Your task to perform on an android device: Clear the cart on ebay. Add jbl flip 4 to the cart on ebay Image 0: 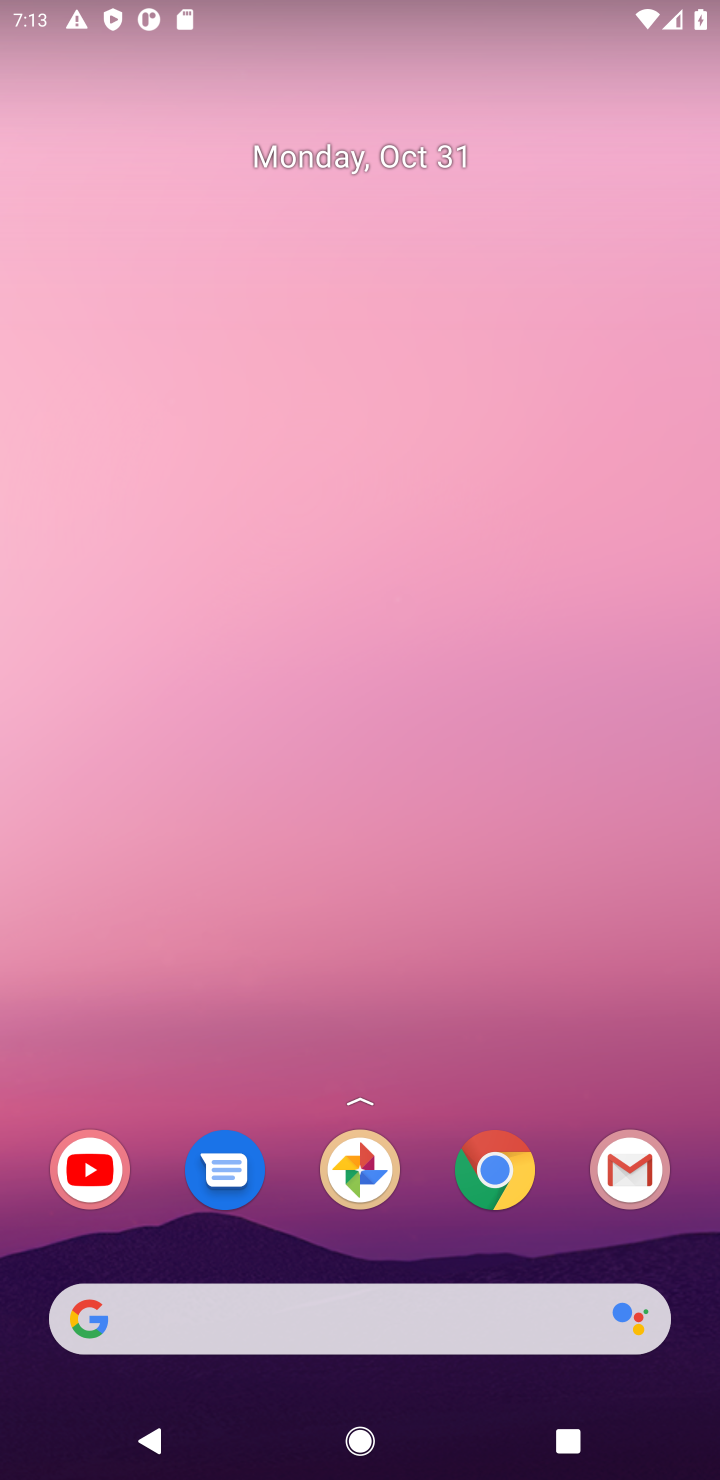
Step 0: click (500, 1178)
Your task to perform on an android device: Clear the cart on ebay. Add jbl flip 4 to the cart on ebay Image 1: 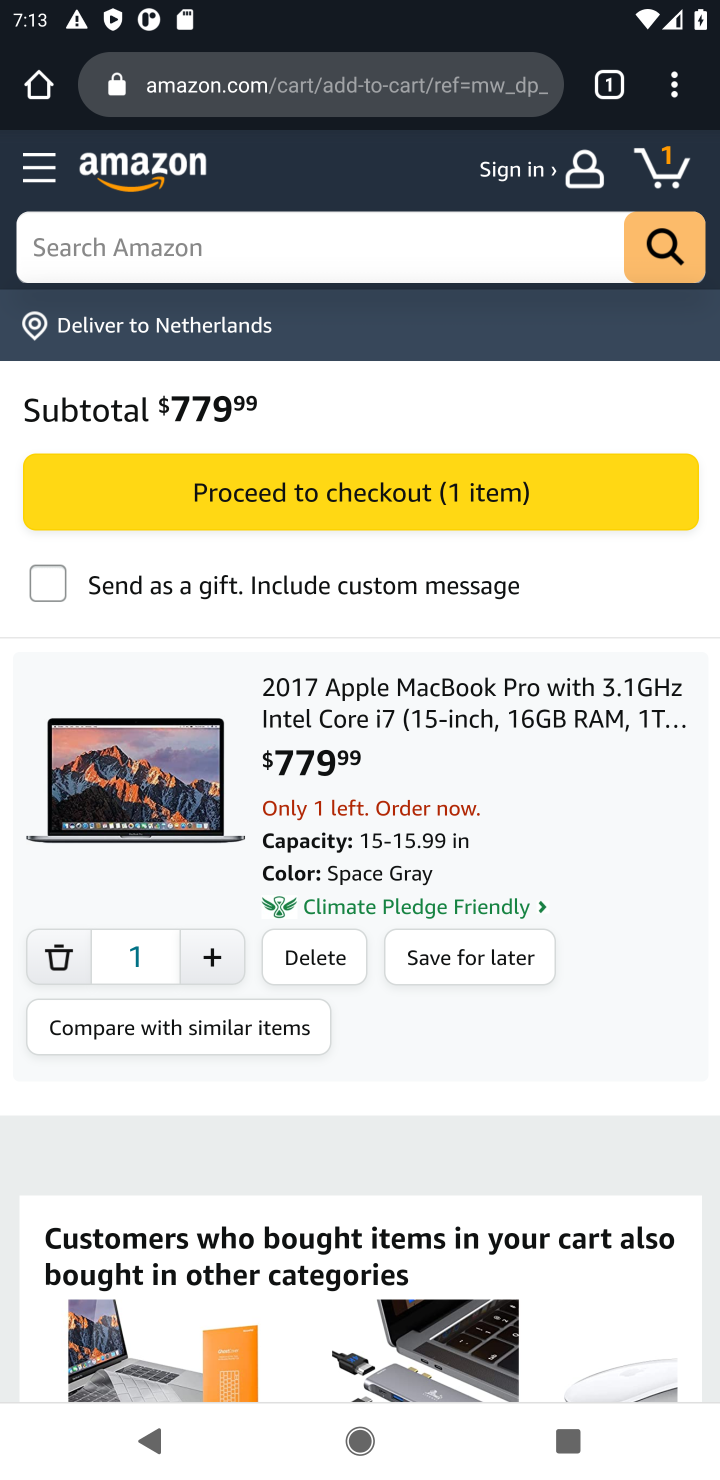
Step 1: click (396, 91)
Your task to perform on an android device: Clear the cart on ebay. Add jbl flip 4 to the cart on ebay Image 2: 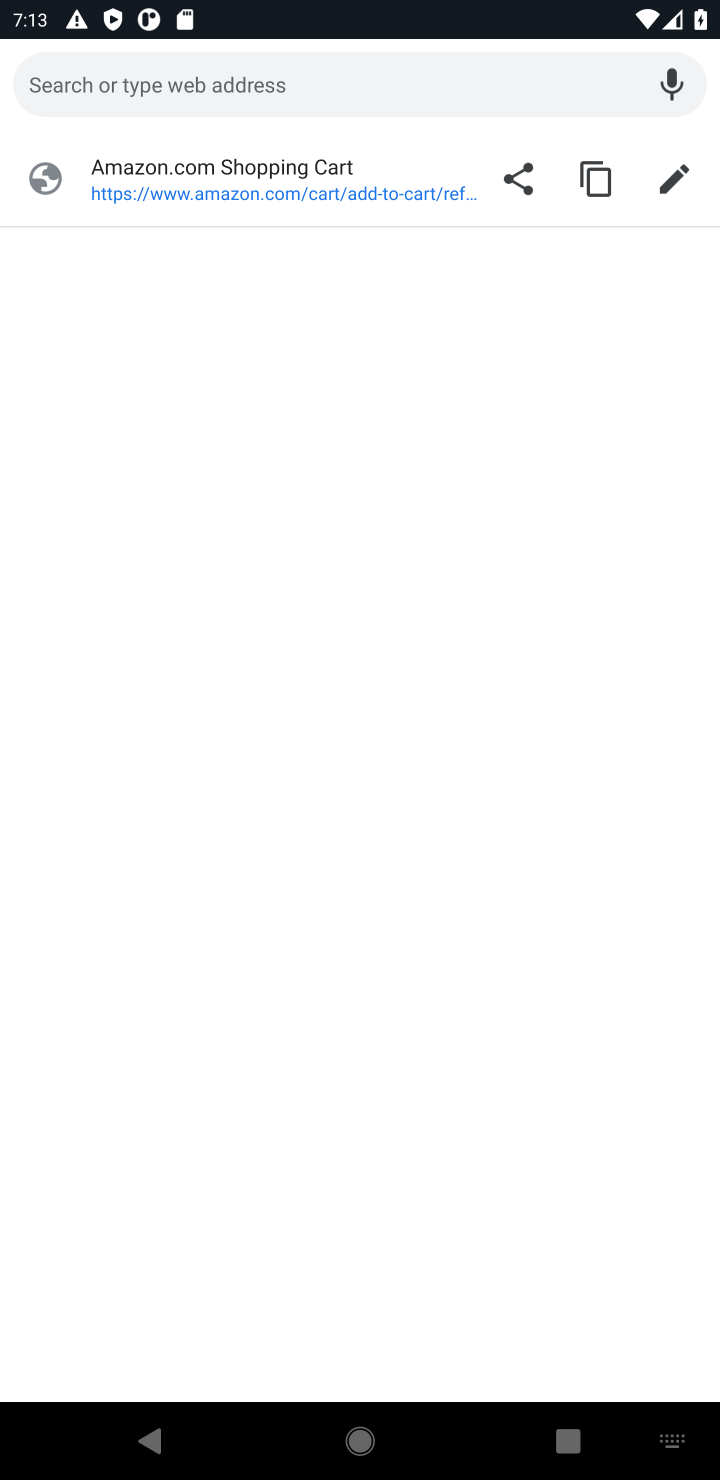
Step 2: press enter
Your task to perform on an android device: Clear the cart on ebay. Add jbl flip 4 to the cart on ebay Image 3: 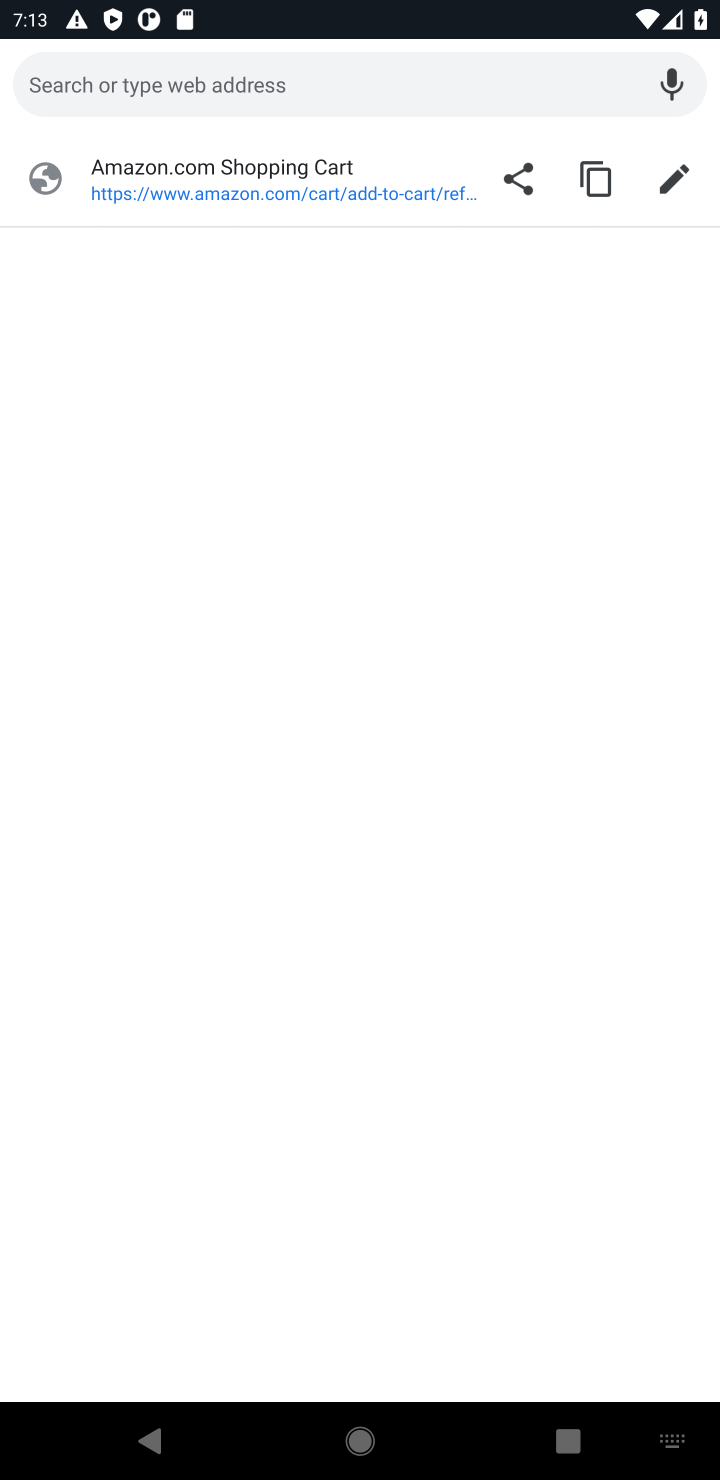
Step 3: type "ebay.com"
Your task to perform on an android device: Clear the cart on ebay. Add jbl flip 4 to the cart on ebay Image 4: 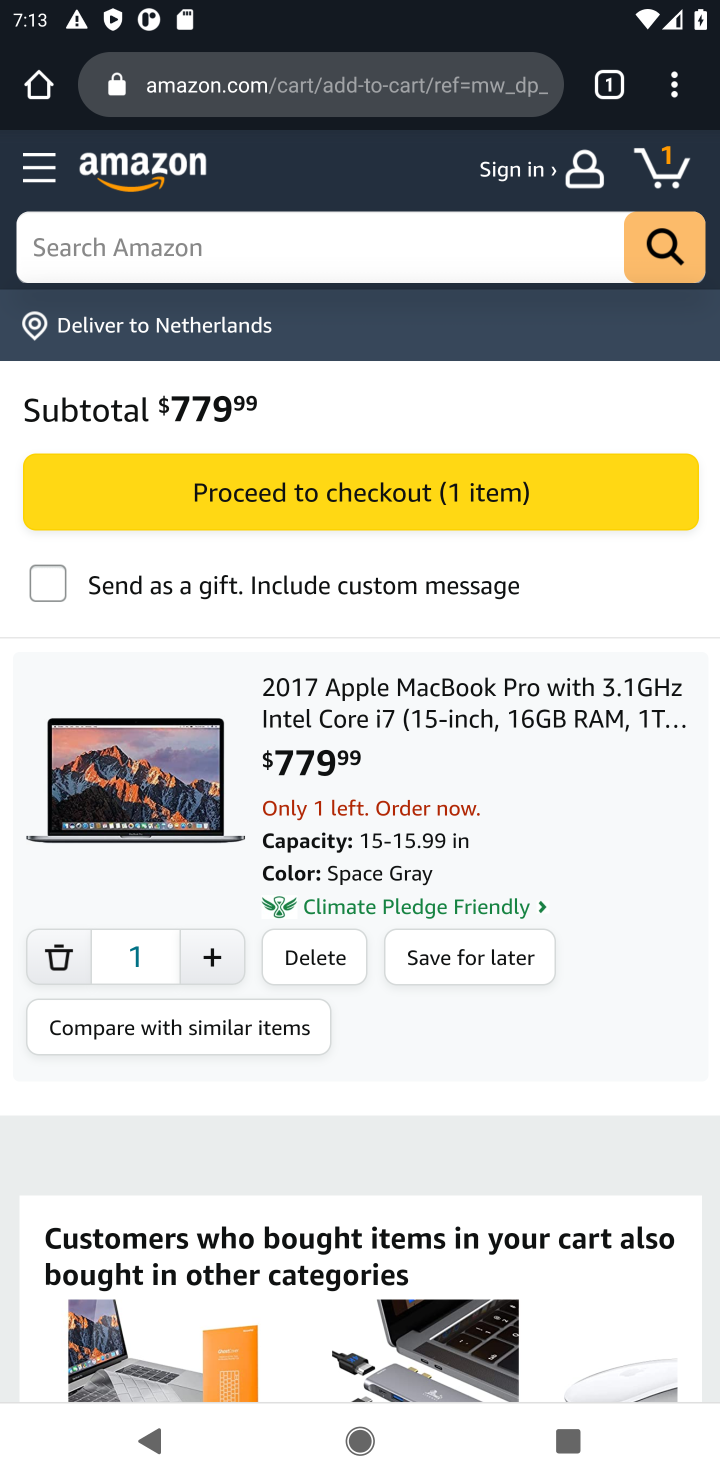
Step 4: click (353, 103)
Your task to perform on an android device: Clear the cart on ebay. Add jbl flip 4 to the cart on ebay Image 5: 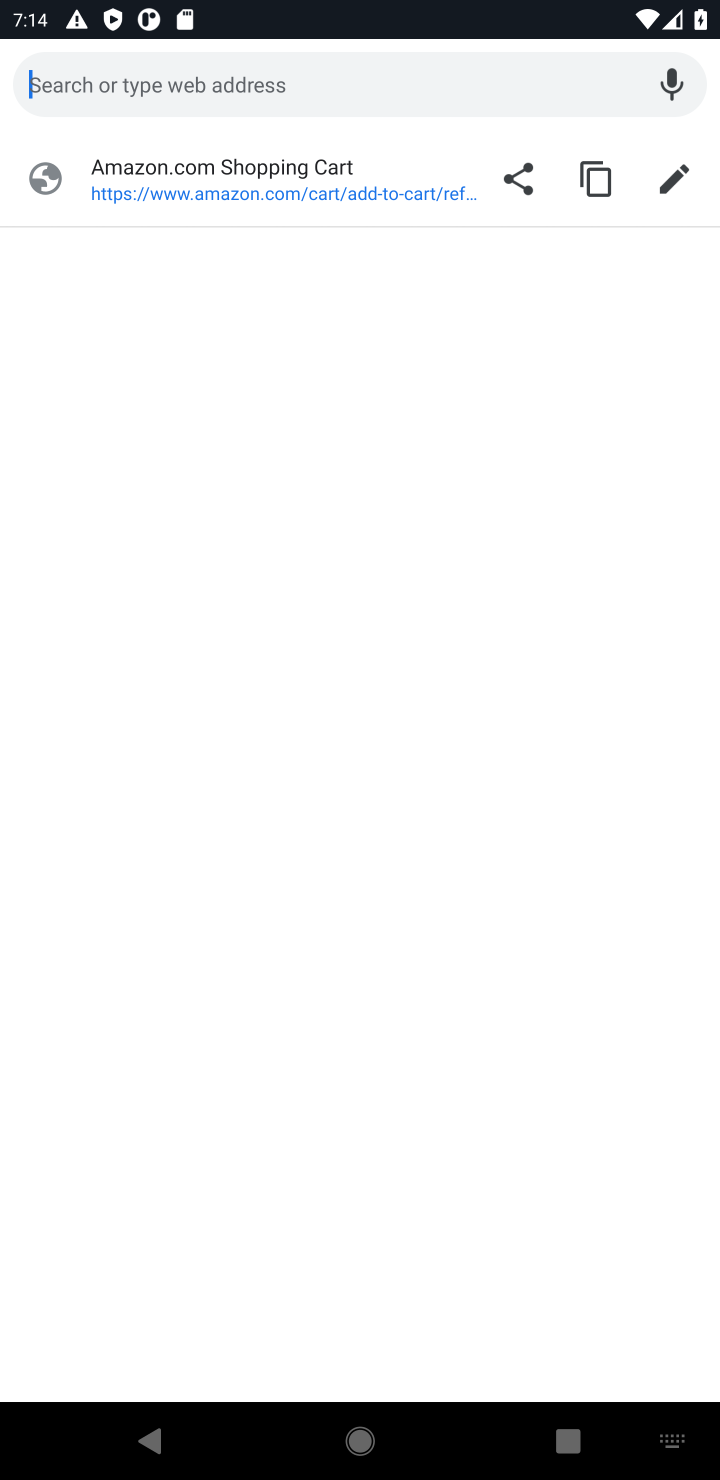
Step 5: type "ebay.com"
Your task to perform on an android device: Clear the cart on ebay. Add jbl flip 4 to the cart on ebay Image 6: 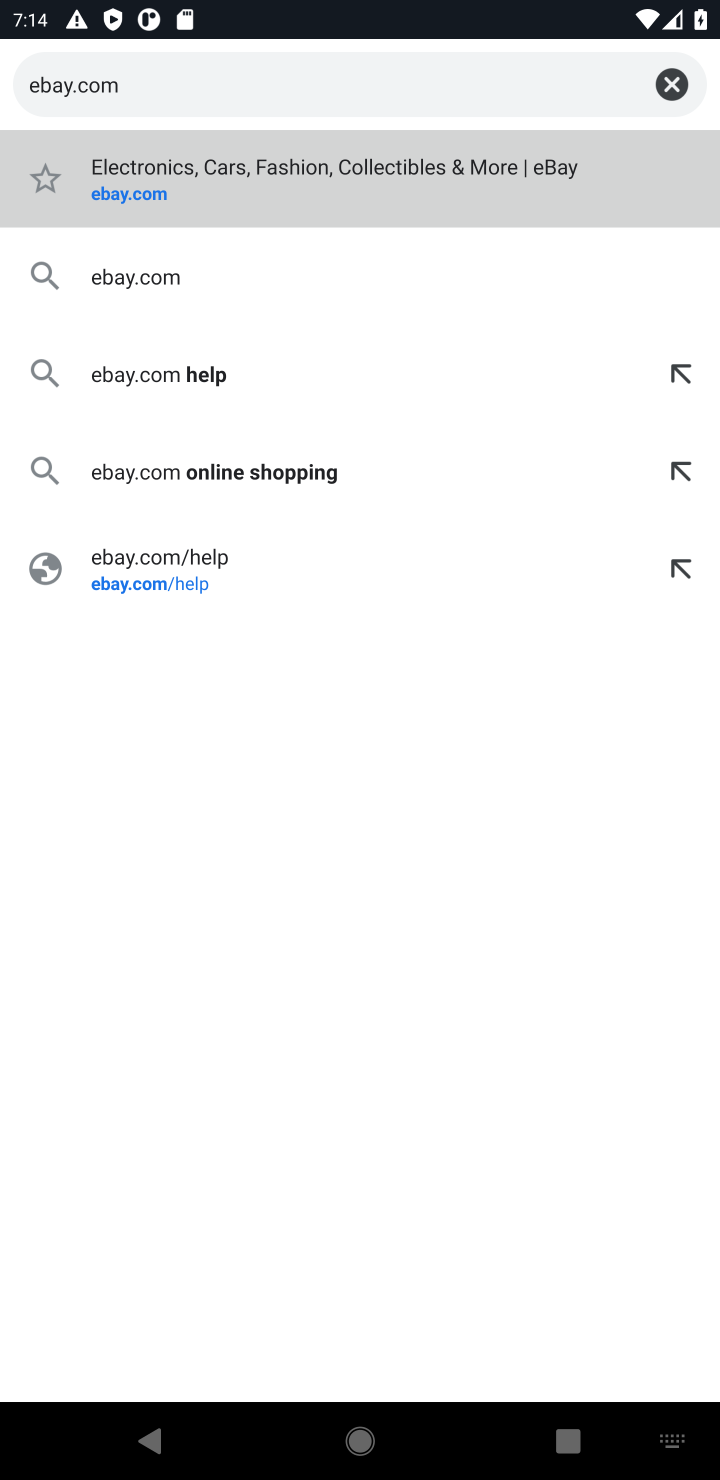
Step 6: press enter
Your task to perform on an android device: Clear the cart on ebay. Add jbl flip 4 to the cart on ebay Image 7: 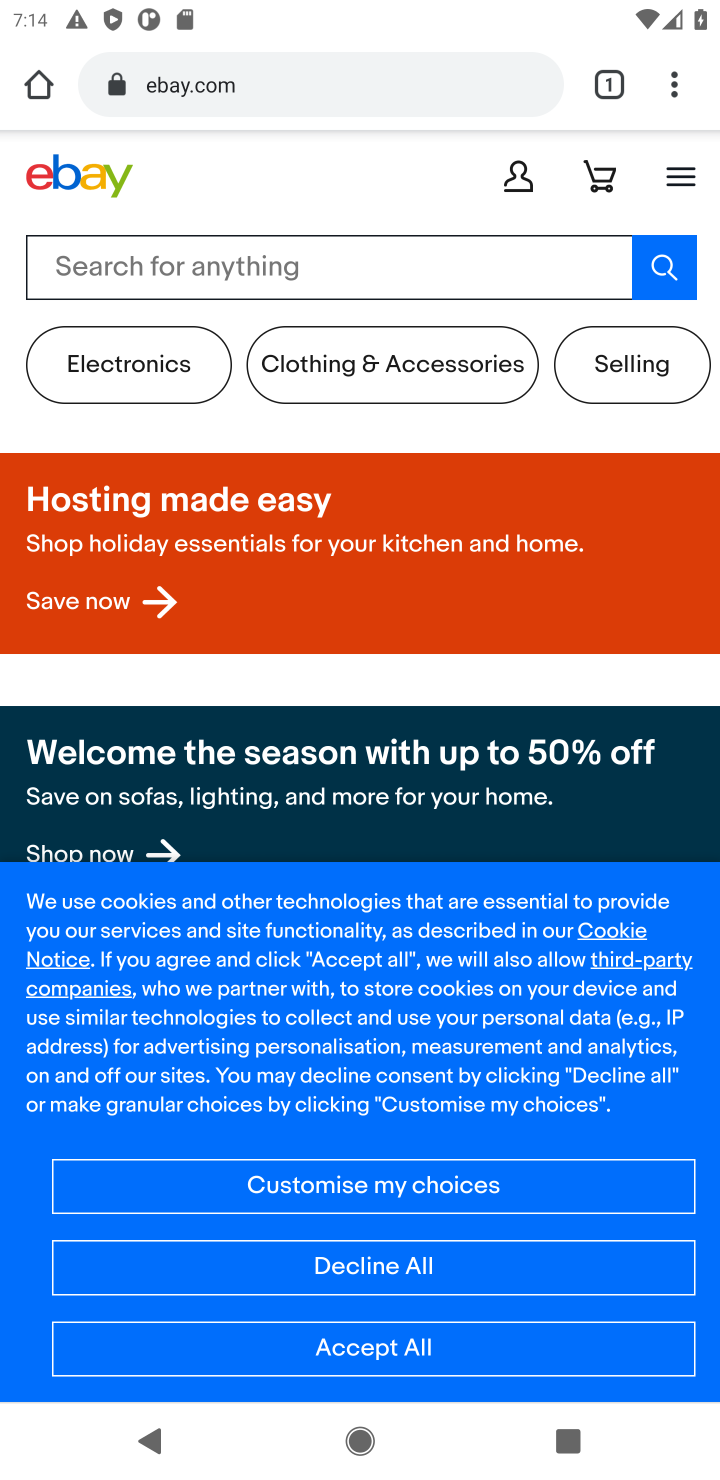
Step 7: click (601, 191)
Your task to perform on an android device: Clear the cart on ebay. Add jbl flip 4 to the cart on ebay Image 8: 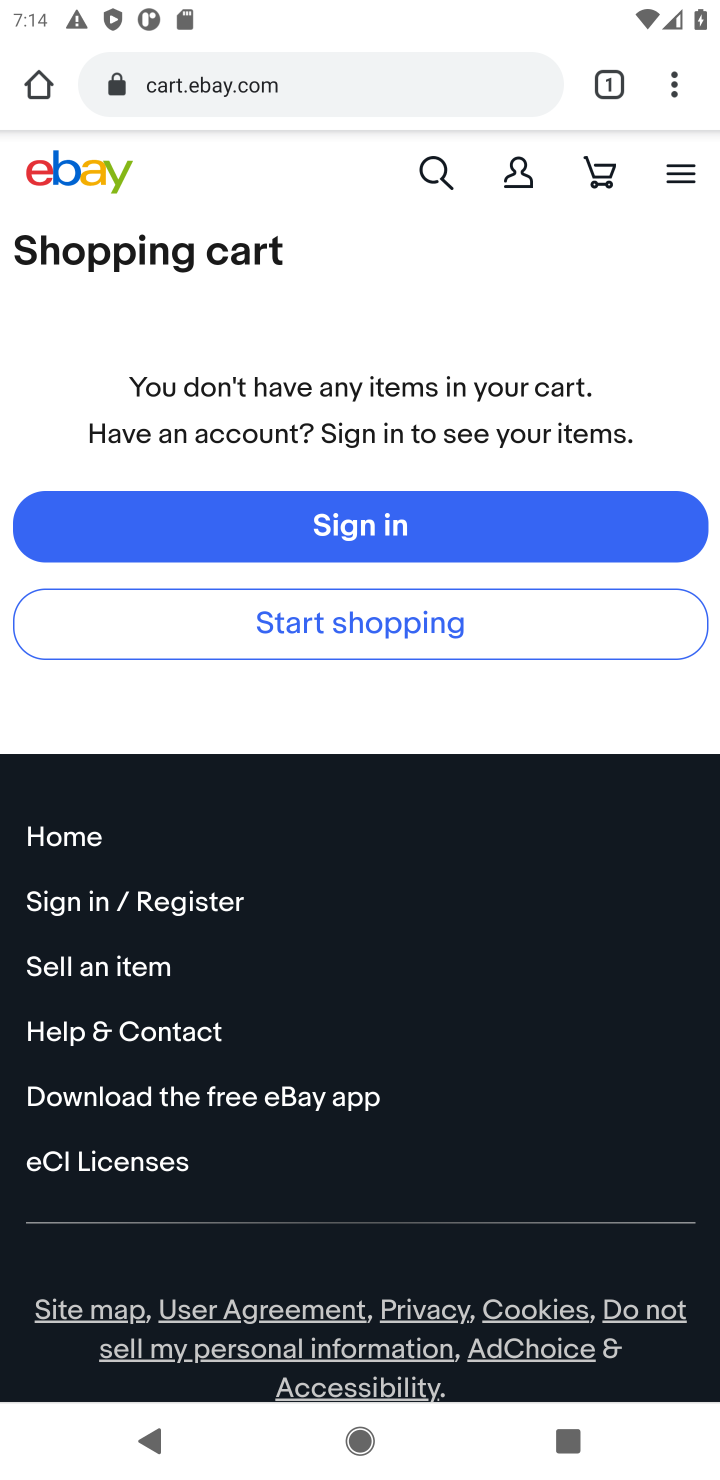
Step 8: click (432, 162)
Your task to perform on an android device: Clear the cart on ebay. Add jbl flip 4 to the cart on ebay Image 9: 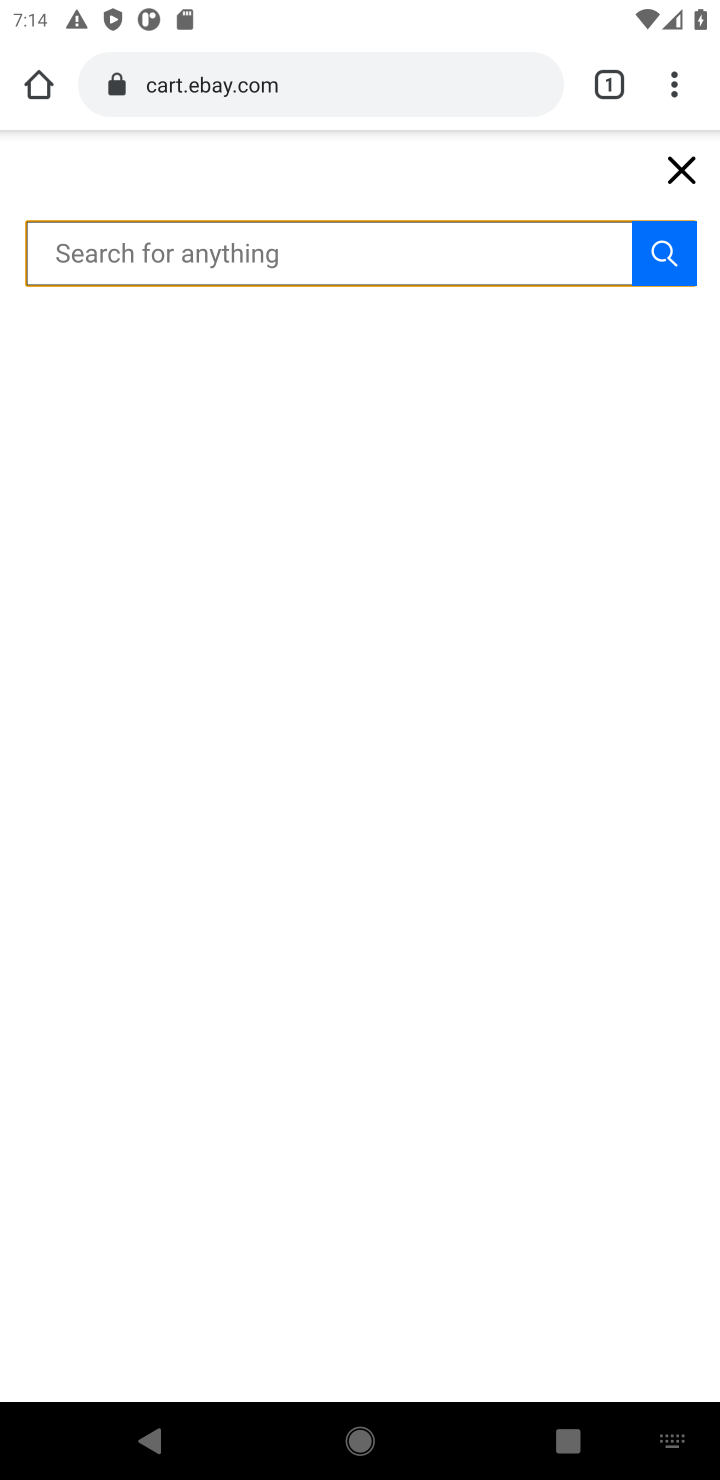
Step 9: type "jbl flip 4"
Your task to perform on an android device: Clear the cart on ebay. Add jbl flip 4 to the cart on ebay Image 10: 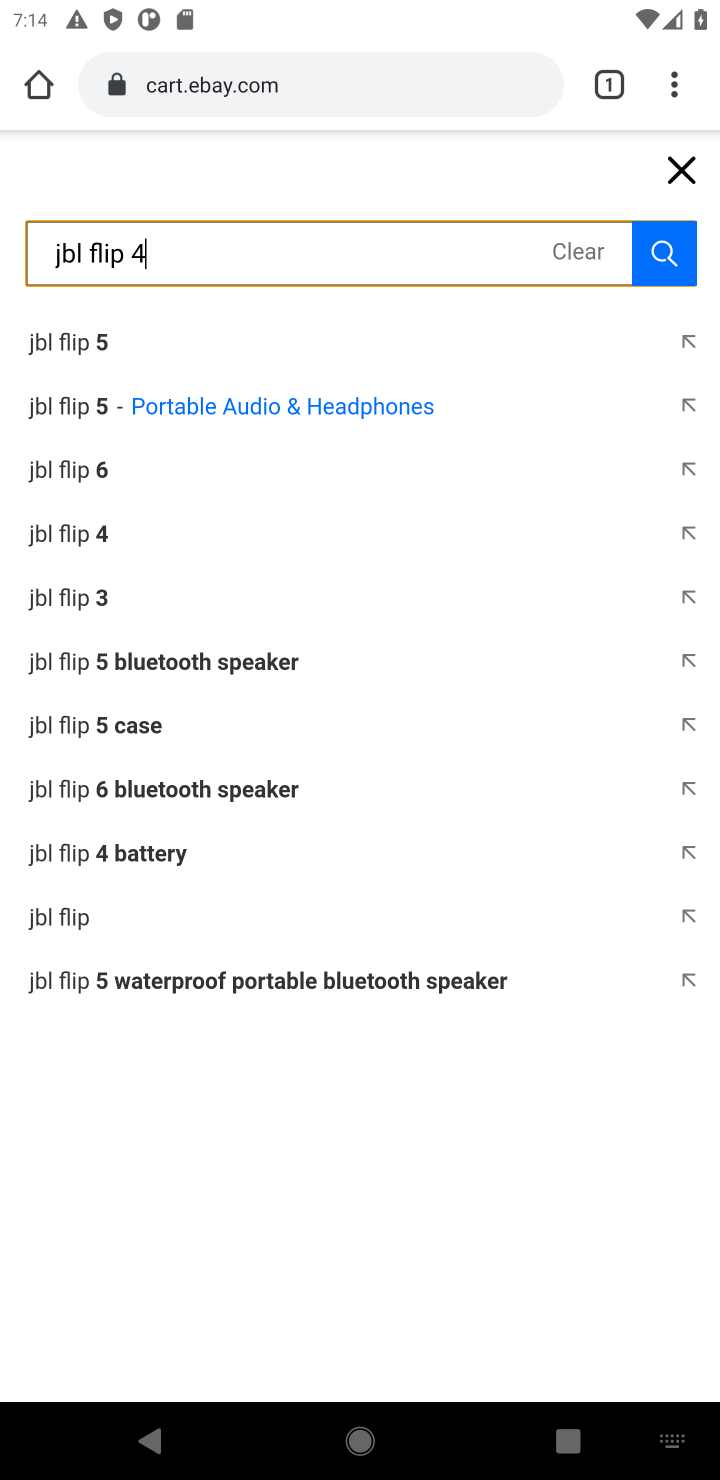
Step 10: press enter
Your task to perform on an android device: Clear the cart on ebay. Add jbl flip 4 to the cart on ebay Image 11: 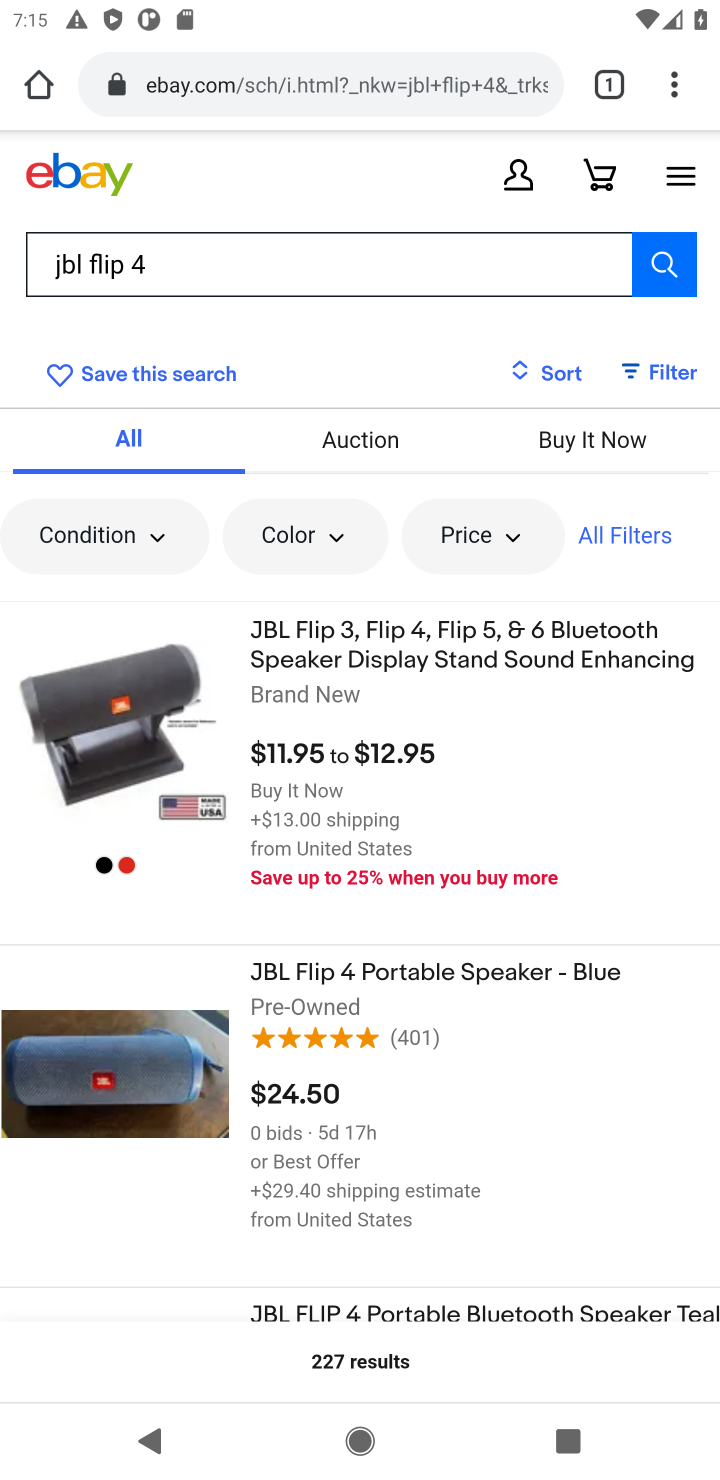
Step 11: click (210, 1082)
Your task to perform on an android device: Clear the cart on ebay. Add jbl flip 4 to the cart on ebay Image 12: 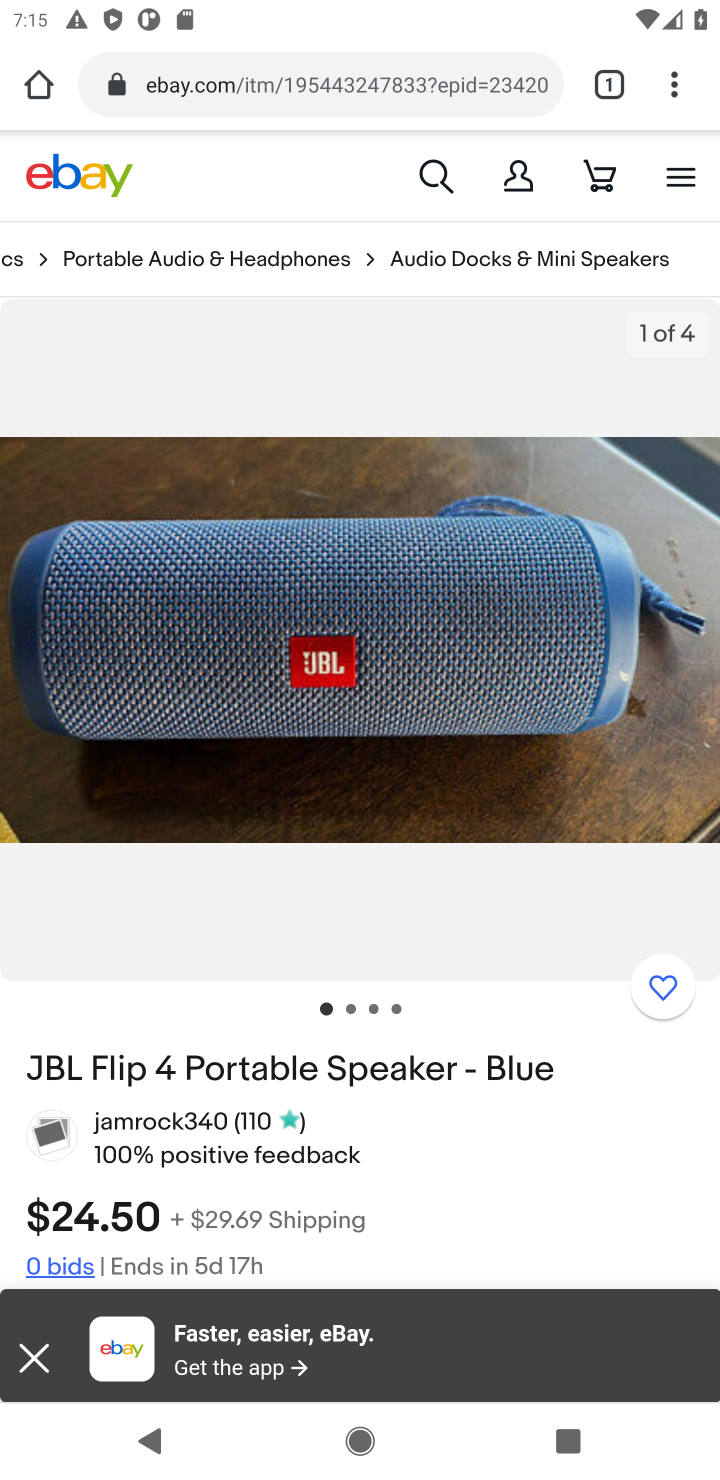
Step 12: task complete